Your task to perform on an android device: Open display settings Image 0: 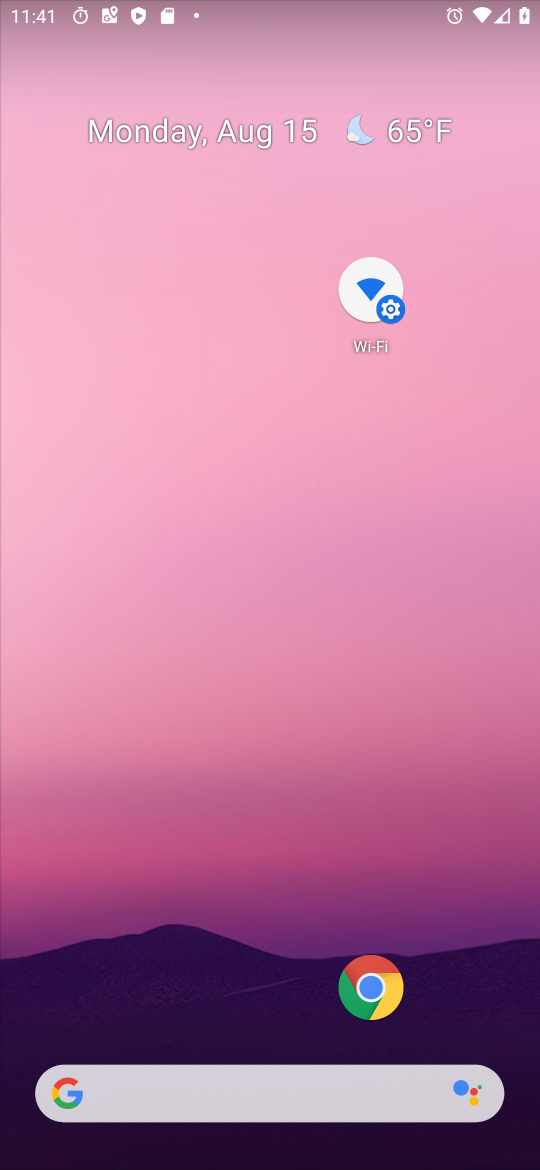
Step 0: drag from (295, 831) to (227, 84)
Your task to perform on an android device: Open display settings Image 1: 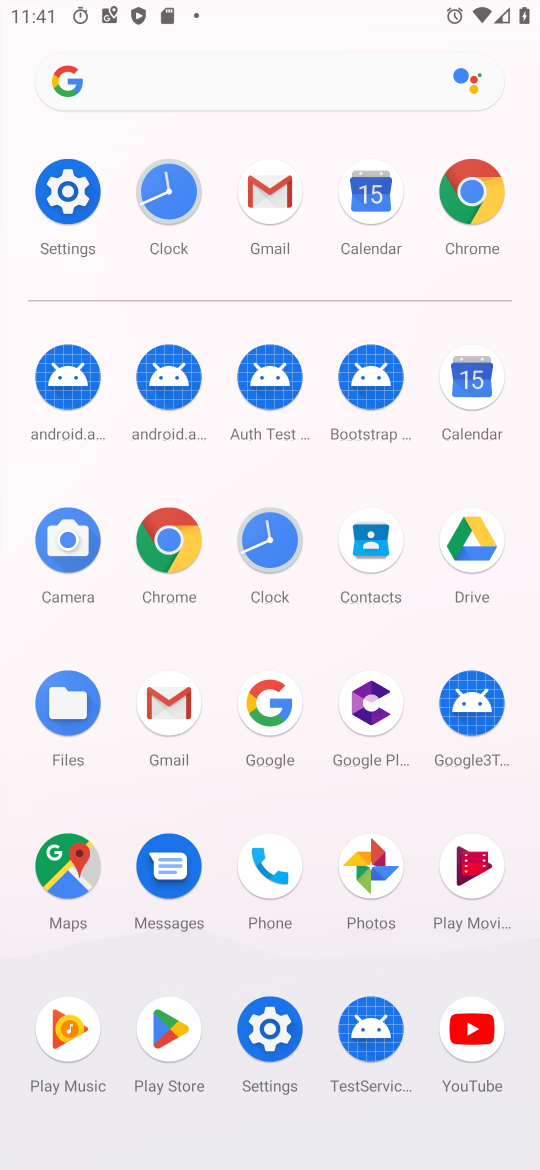
Step 1: click (242, 1044)
Your task to perform on an android device: Open display settings Image 2: 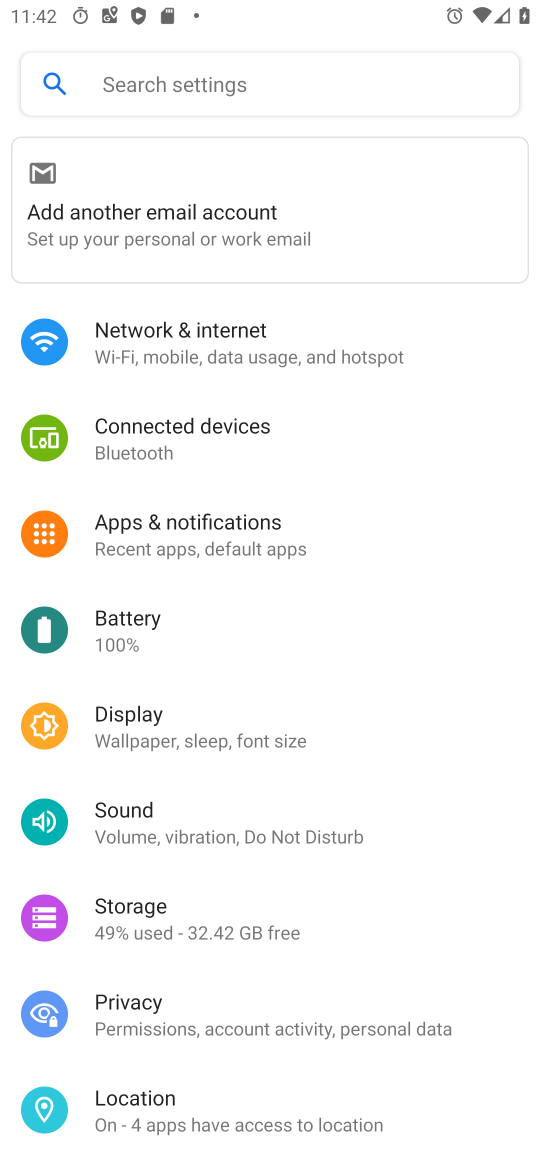
Step 2: click (141, 720)
Your task to perform on an android device: Open display settings Image 3: 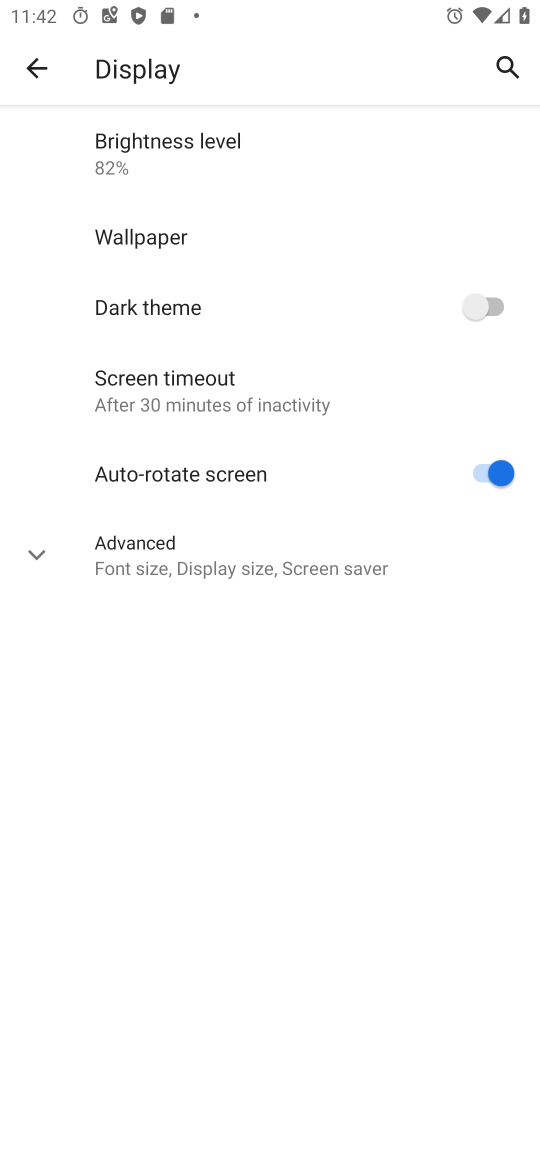
Step 3: task complete